Your task to perform on an android device: open app "Google Docs" Image 0: 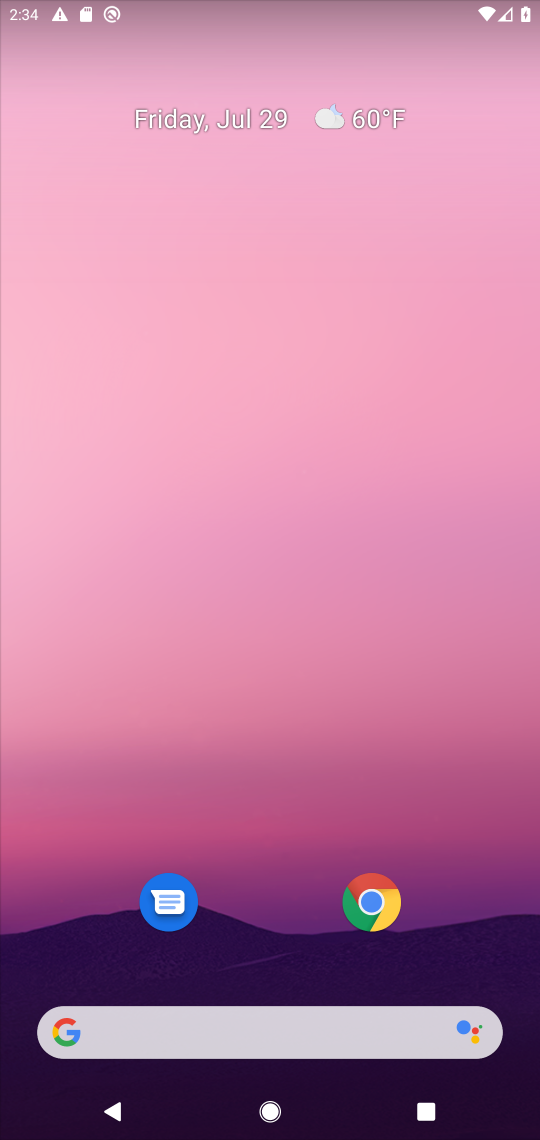
Step 0: drag from (267, 984) to (351, 43)
Your task to perform on an android device: open app "Google Docs" Image 1: 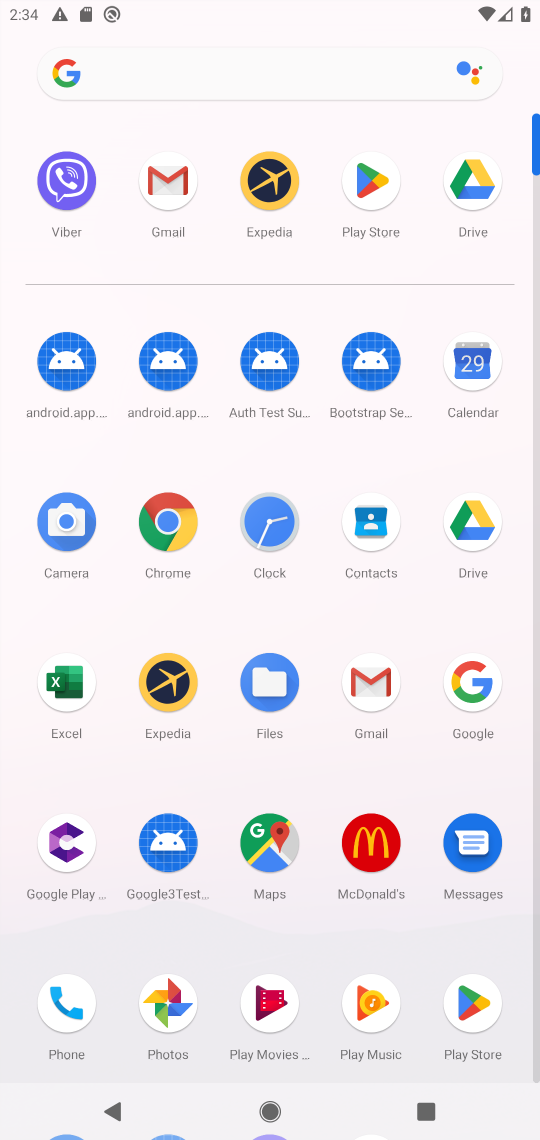
Step 1: click (369, 177)
Your task to perform on an android device: open app "Google Docs" Image 2: 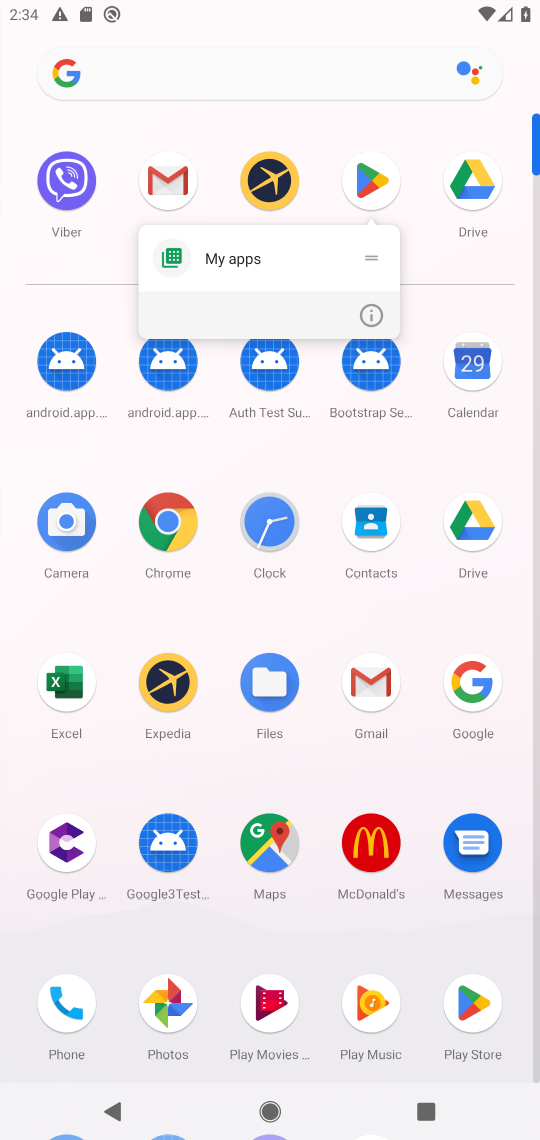
Step 2: click (373, 171)
Your task to perform on an android device: open app "Google Docs" Image 3: 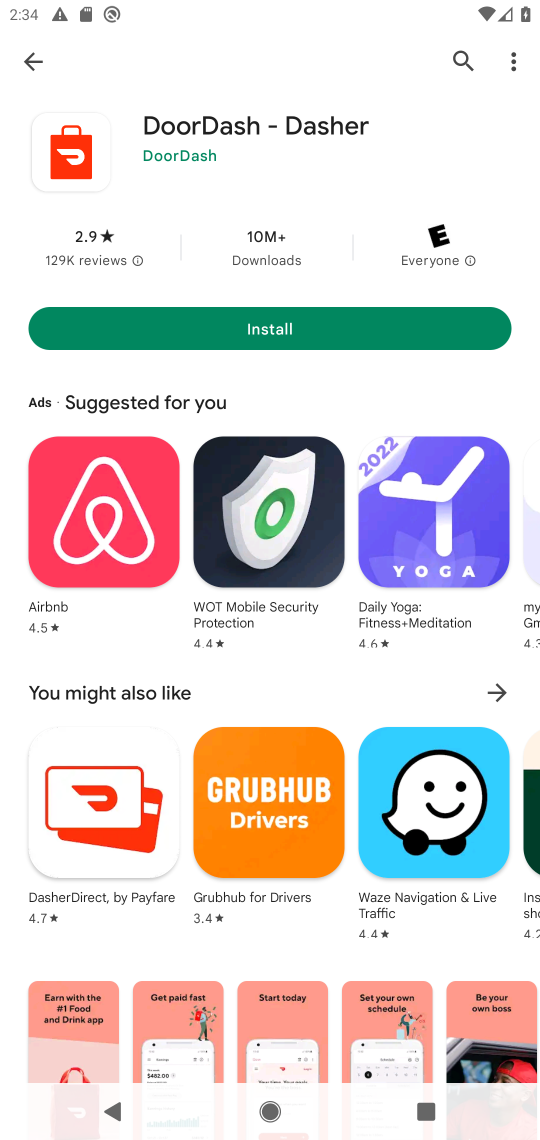
Step 3: click (38, 65)
Your task to perform on an android device: open app "Google Docs" Image 4: 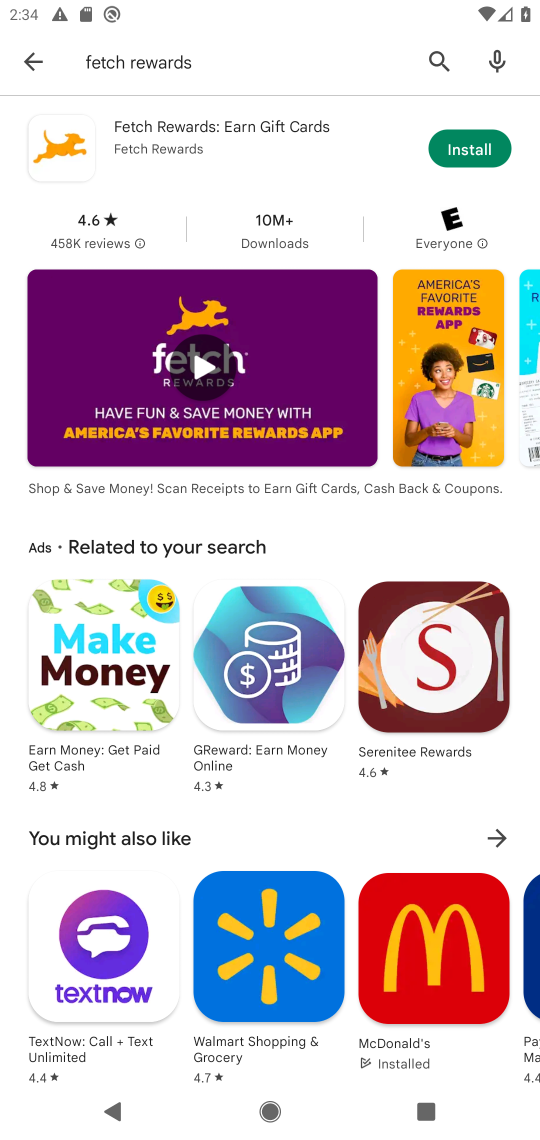
Step 4: click (445, 58)
Your task to perform on an android device: open app "Google Docs" Image 5: 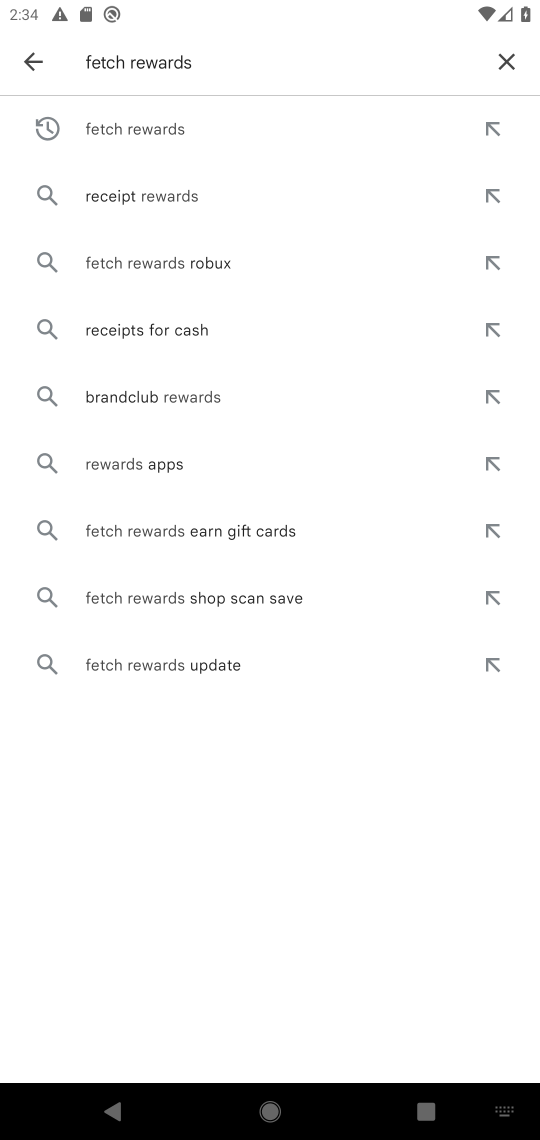
Step 5: click (508, 65)
Your task to perform on an android device: open app "Google Docs" Image 6: 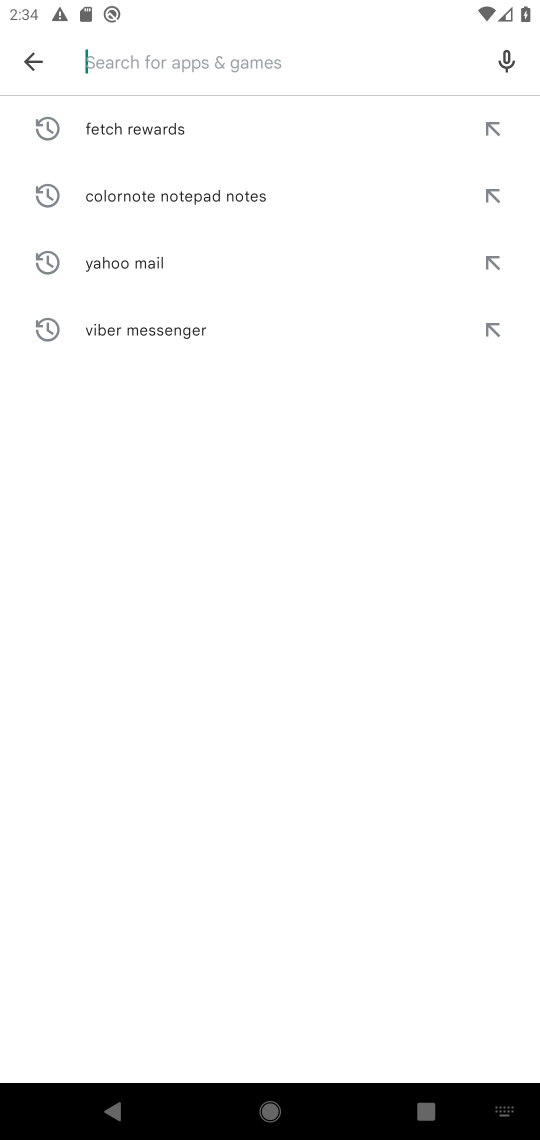
Step 6: type "Google Docs"
Your task to perform on an android device: open app "Google Docs" Image 7: 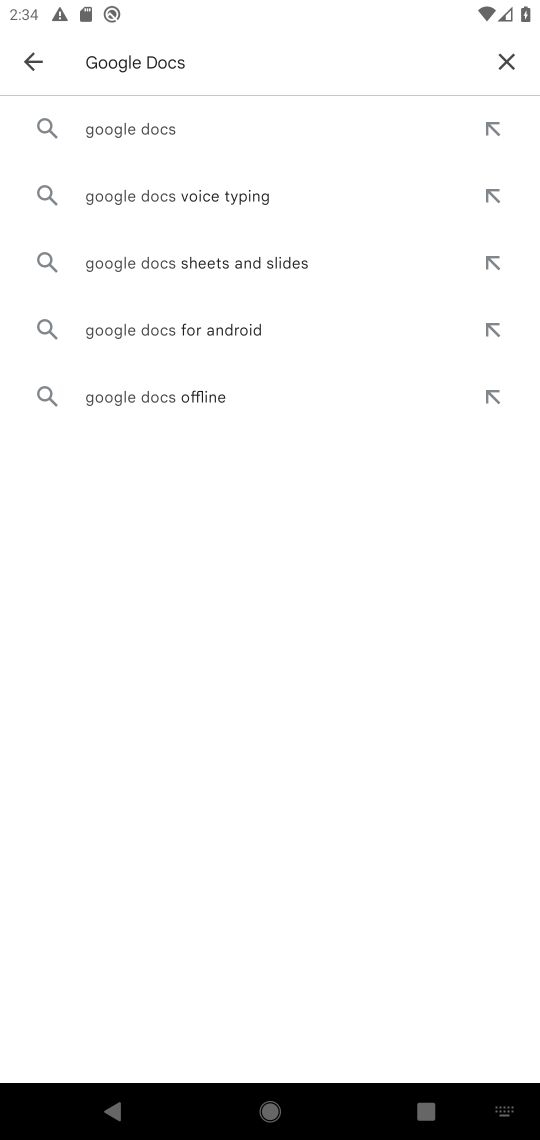
Step 7: click (141, 125)
Your task to perform on an android device: open app "Google Docs" Image 8: 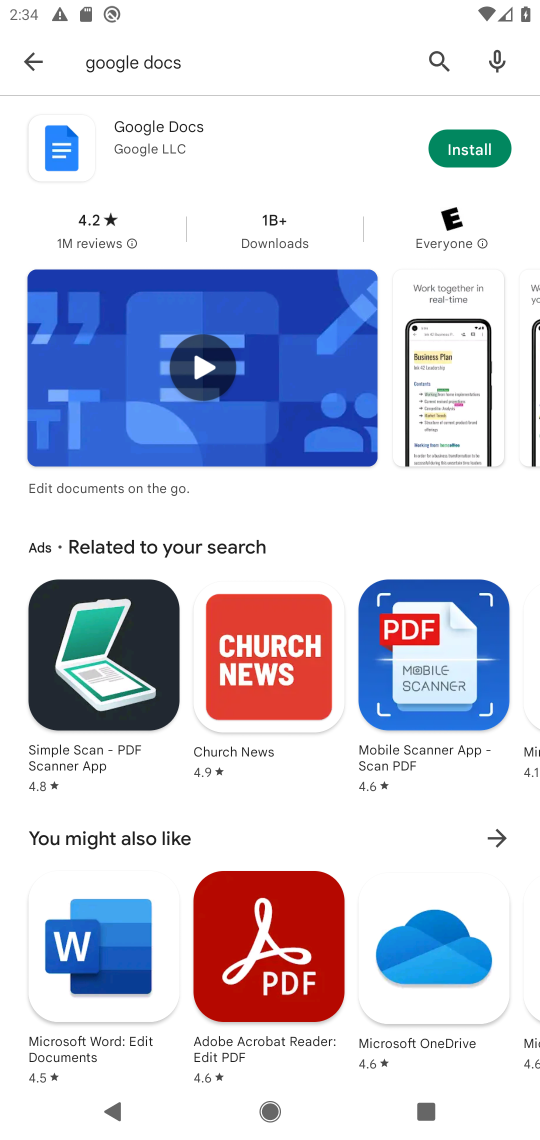
Step 8: click (459, 145)
Your task to perform on an android device: open app "Google Docs" Image 9: 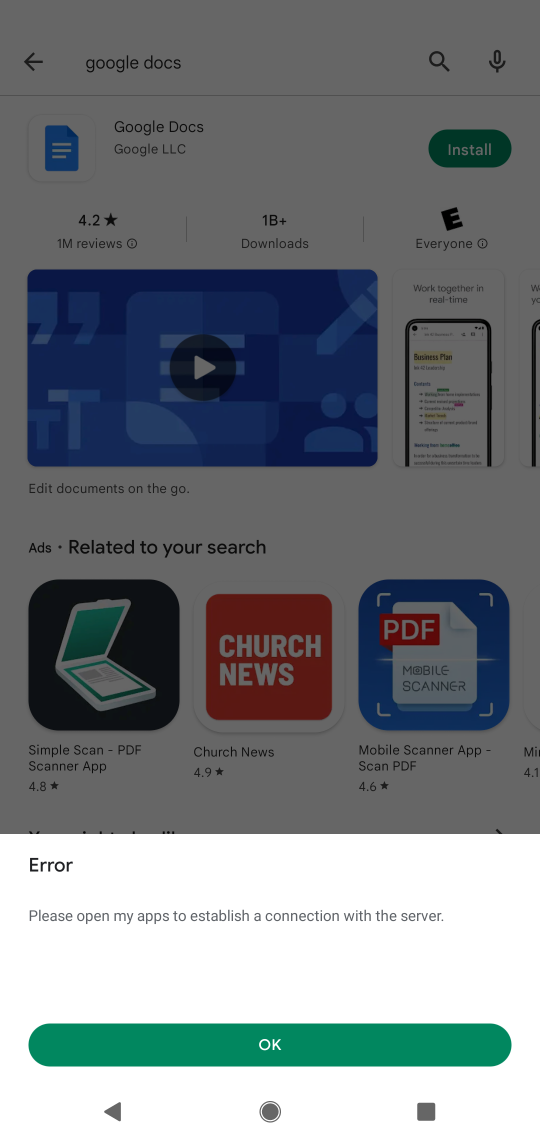
Step 9: click (267, 1045)
Your task to perform on an android device: open app "Google Docs" Image 10: 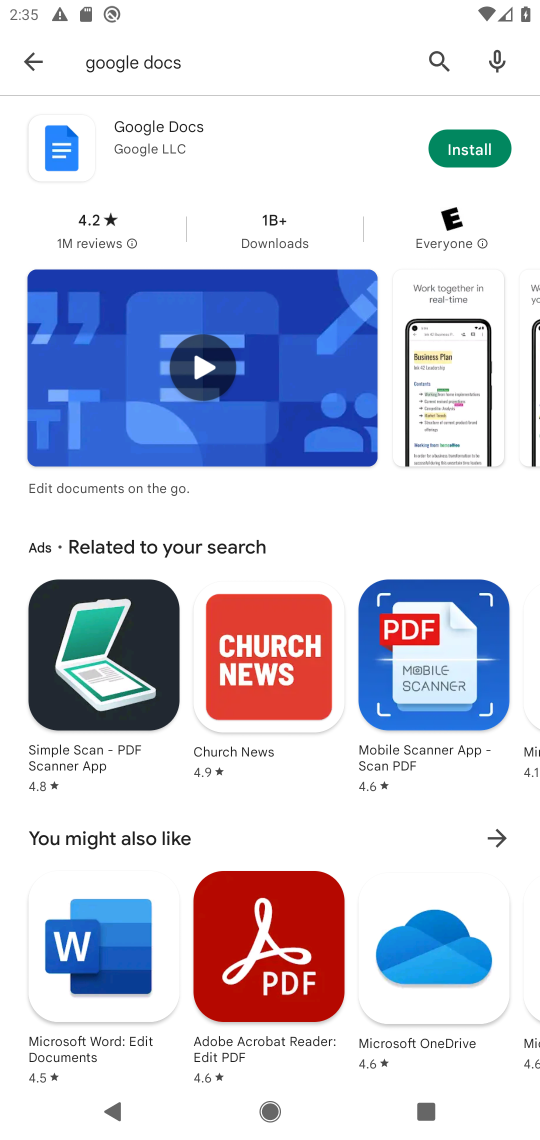
Step 10: task complete